Your task to perform on an android device: open app "Indeed Job Search" (install if not already installed) and enter user name: "quixotic@inbox.com" and password: "microphones" Image 0: 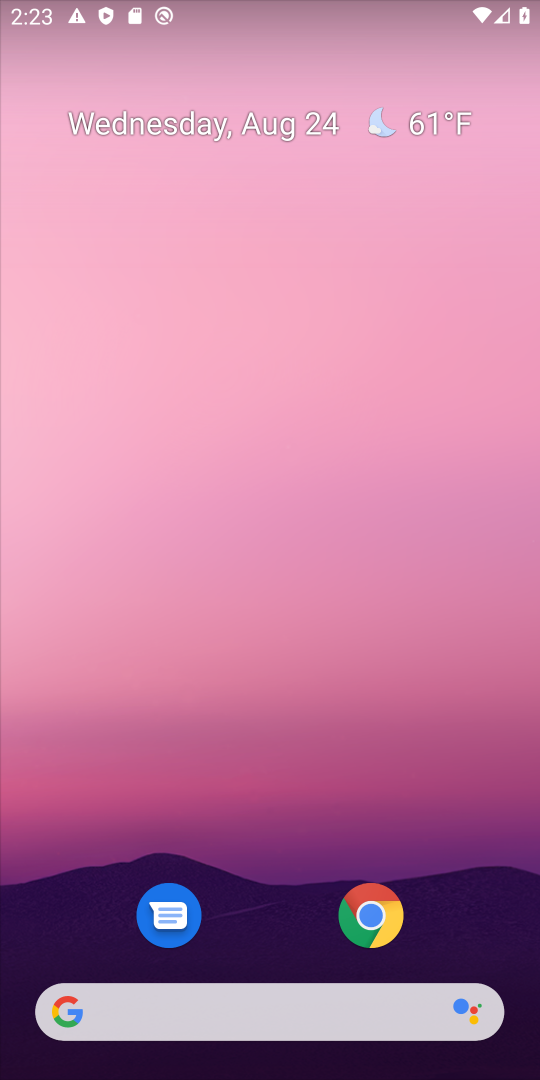
Step 0: drag from (256, 748) to (248, 215)
Your task to perform on an android device: open app "Indeed Job Search" (install if not already installed) and enter user name: "quixotic@inbox.com" and password: "microphones" Image 1: 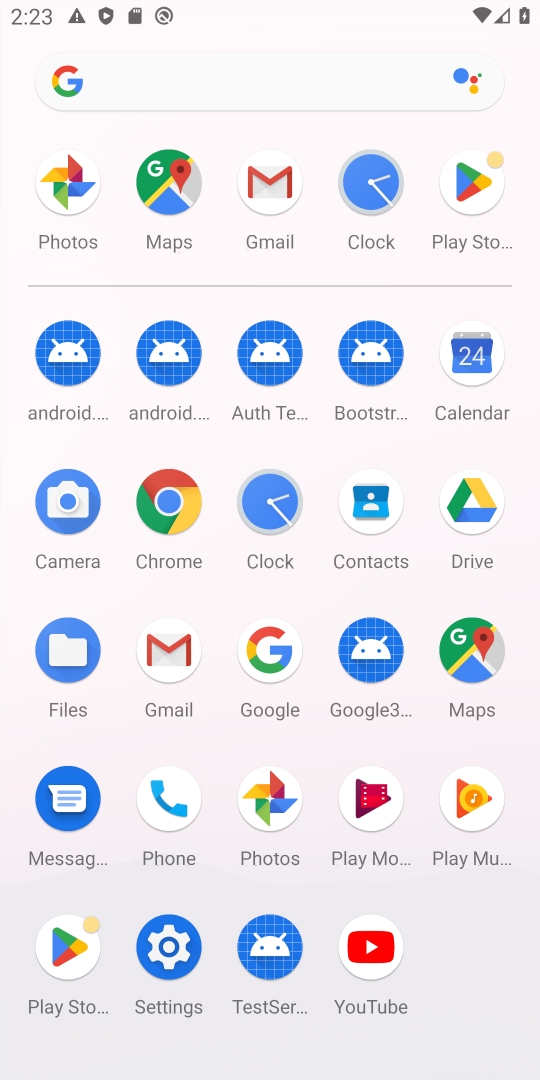
Step 1: click (459, 181)
Your task to perform on an android device: open app "Indeed Job Search" (install if not already installed) and enter user name: "quixotic@inbox.com" and password: "microphones" Image 2: 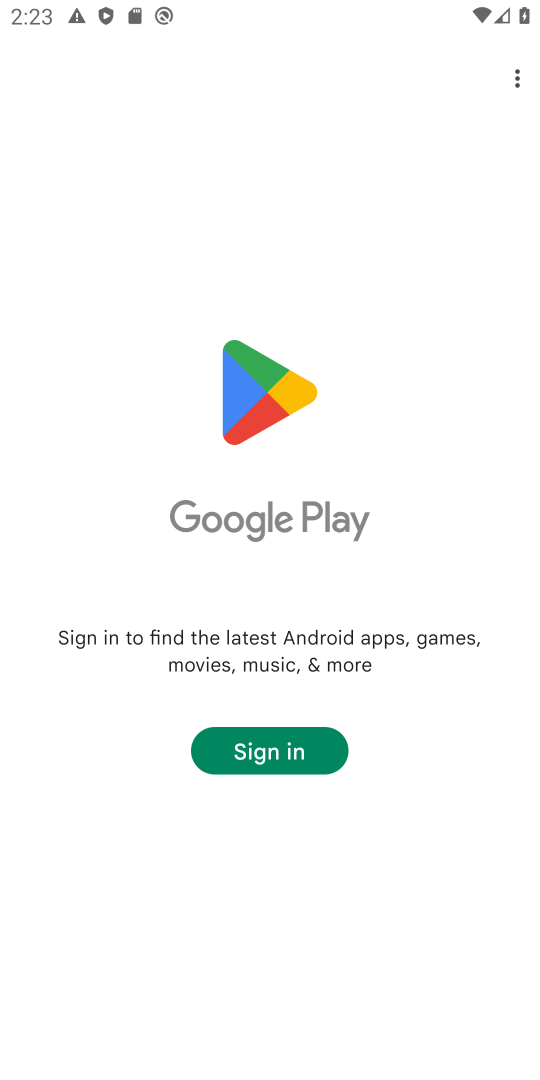
Step 2: task complete